Your task to perform on an android device: Open calendar and show me the third week of next month Image 0: 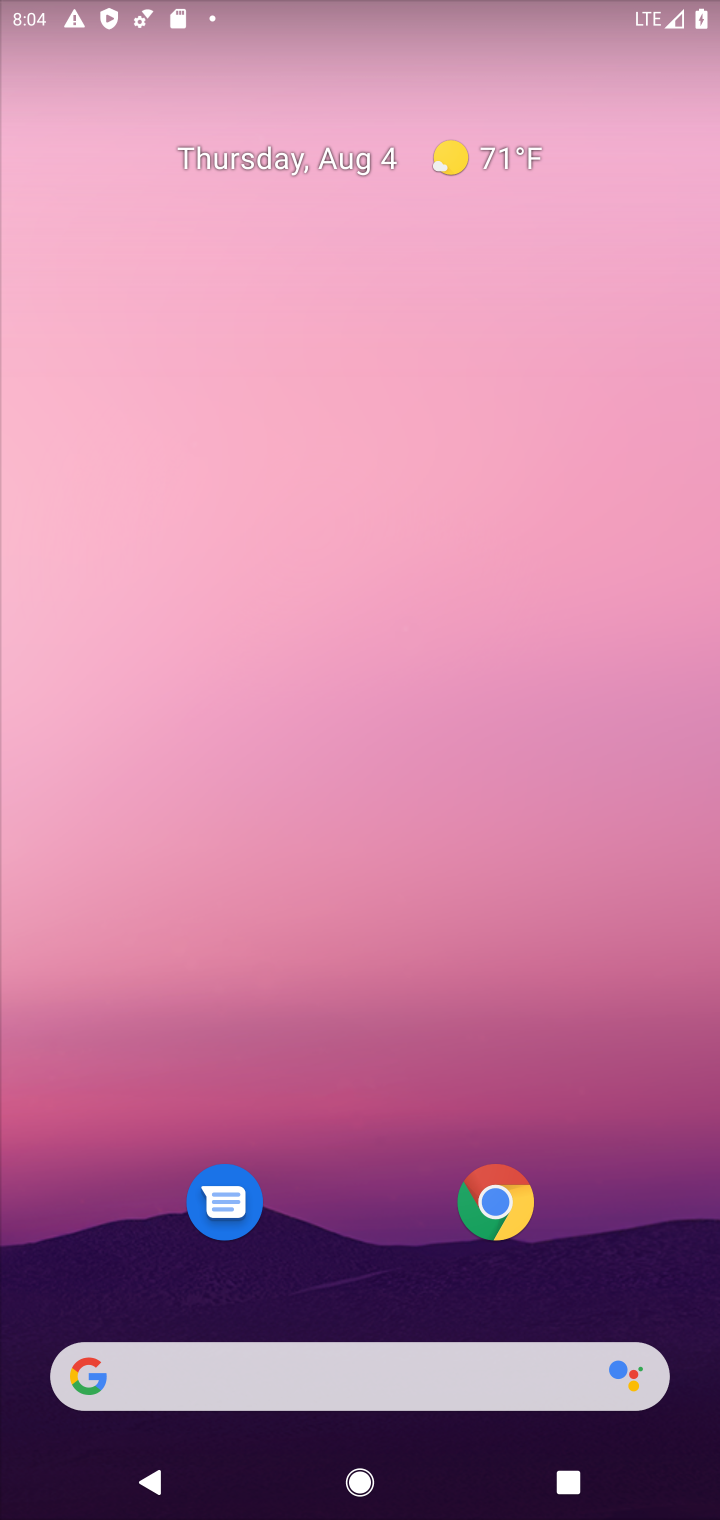
Step 0: drag from (324, 817) to (324, 373)
Your task to perform on an android device: Open calendar and show me the third week of next month Image 1: 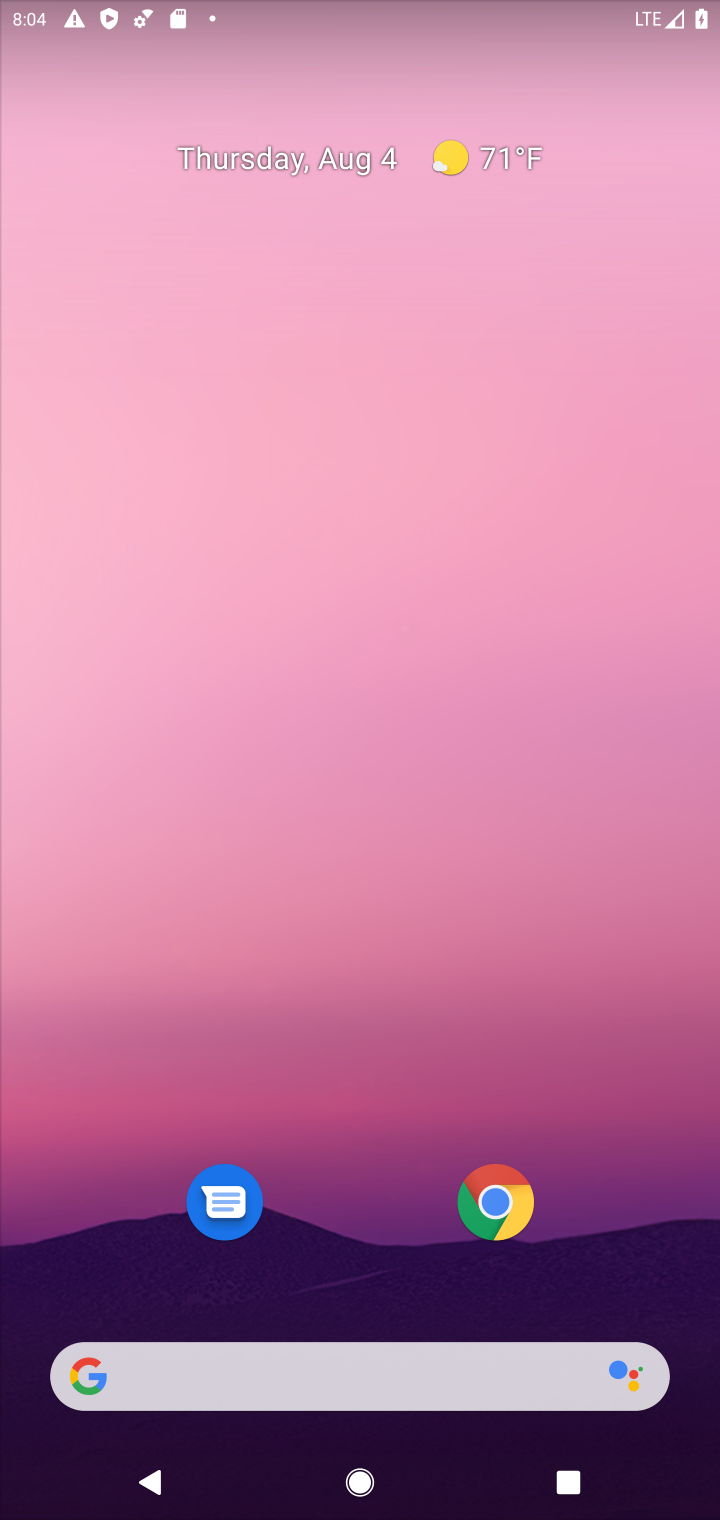
Step 1: drag from (360, 1300) to (305, 357)
Your task to perform on an android device: Open calendar and show me the third week of next month Image 2: 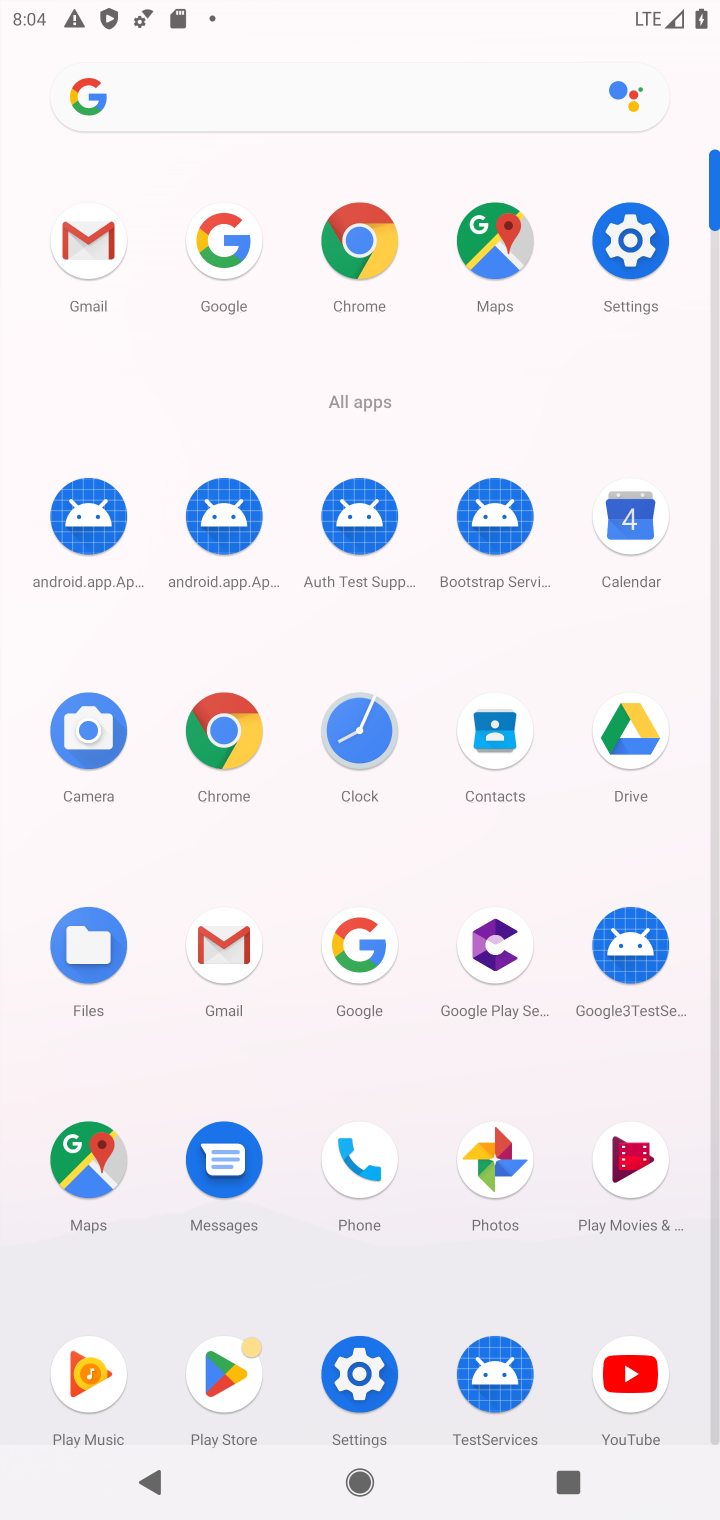
Step 2: click (605, 540)
Your task to perform on an android device: Open calendar and show me the third week of next month Image 3: 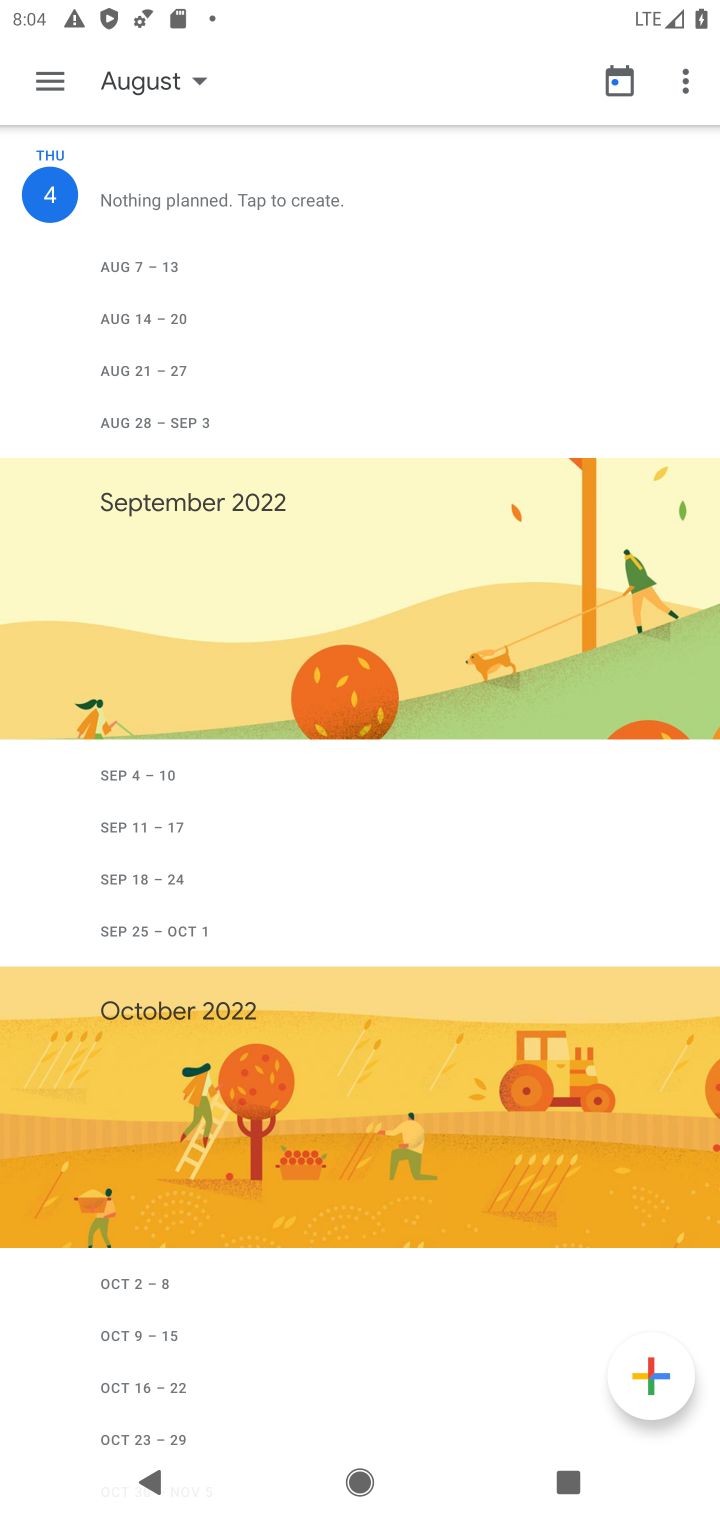
Step 3: click (178, 99)
Your task to perform on an android device: Open calendar and show me the third week of next month Image 4: 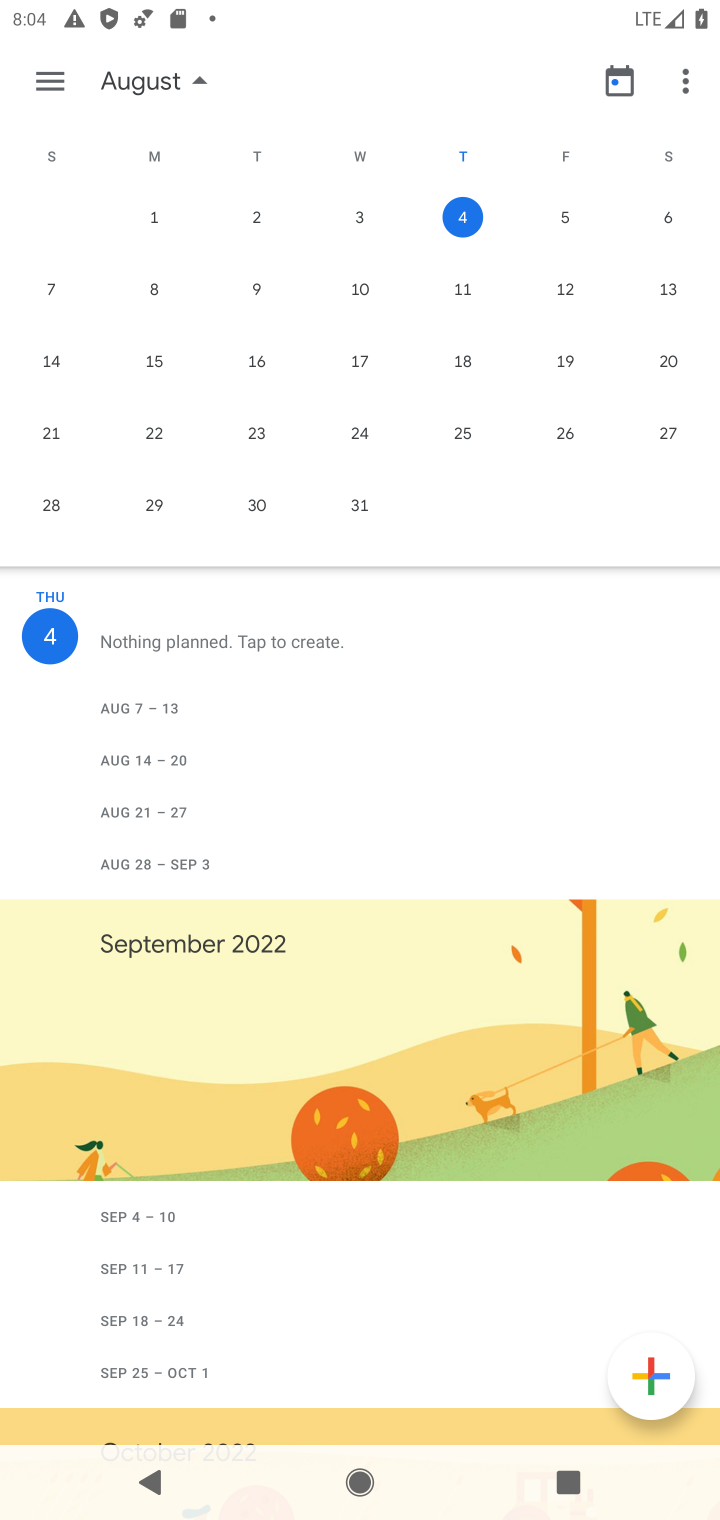
Step 4: drag from (635, 325) to (28, 341)
Your task to perform on an android device: Open calendar and show me the third week of next month Image 5: 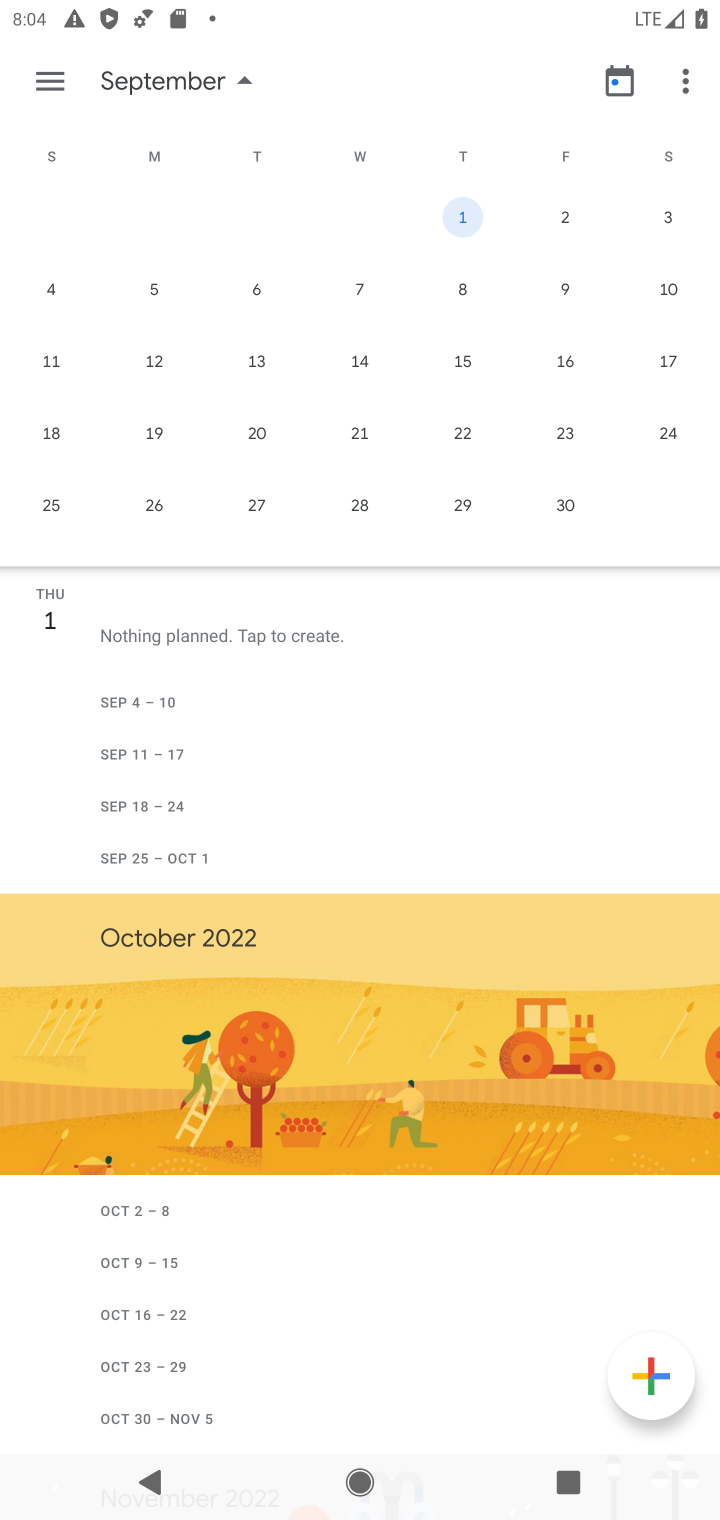
Step 5: click (52, 350)
Your task to perform on an android device: Open calendar and show me the third week of next month Image 6: 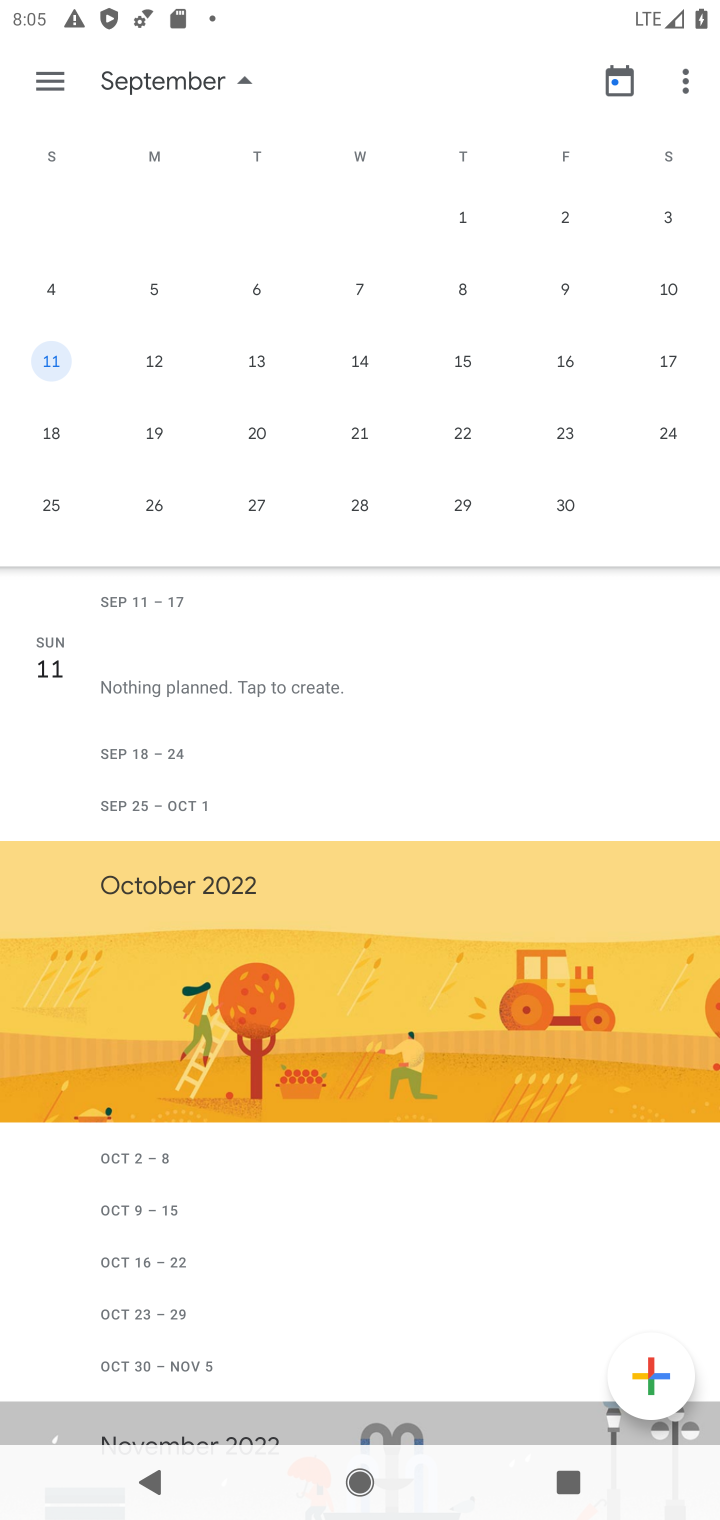
Step 6: task complete